Your task to perform on an android device: Play the last video I watched on Youtube Image 0: 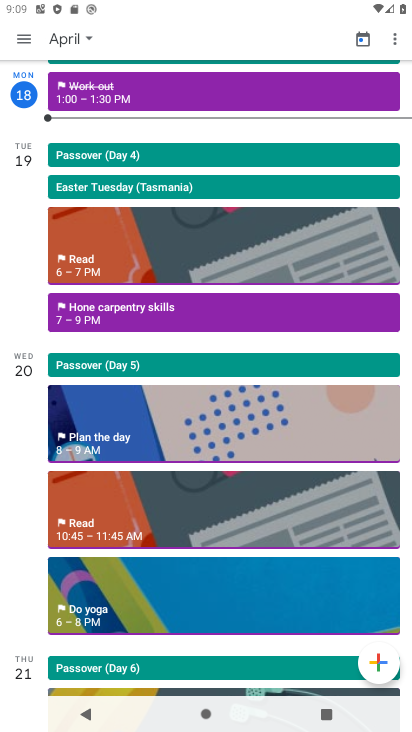
Step 0: drag from (120, 613) to (226, 291)
Your task to perform on an android device: Play the last video I watched on Youtube Image 1: 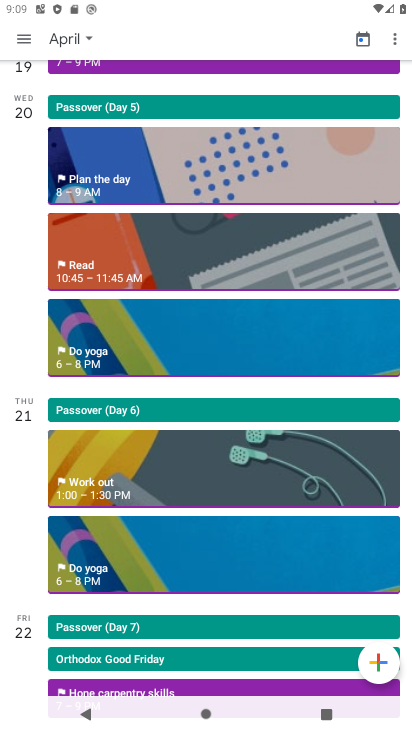
Step 1: drag from (296, 331) to (388, 722)
Your task to perform on an android device: Play the last video I watched on Youtube Image 2: 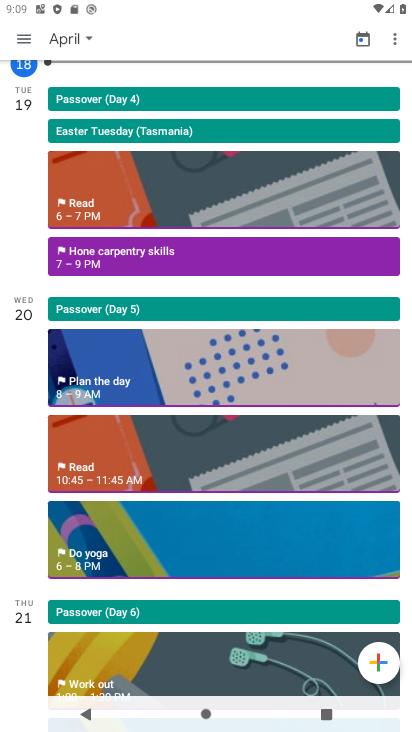
Step 2: press home button
Your task to perform on an android device: Play the last video I watched on Youtube Image 3: 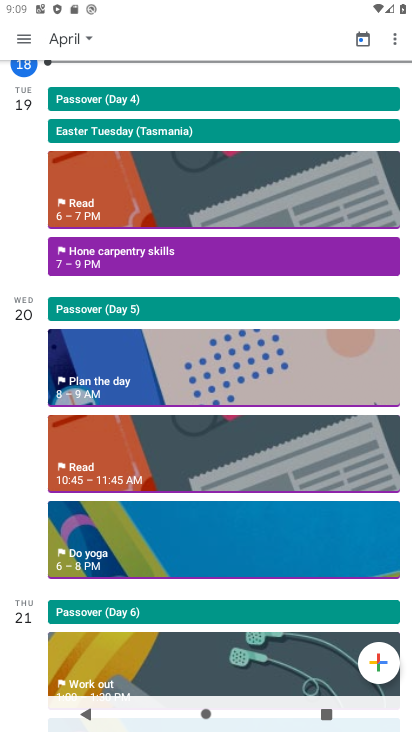
Step 3: drag from (388, 722) to (395, 417)
Your task to perform on an android device: Play the last video I watched on Youtube Image 4: 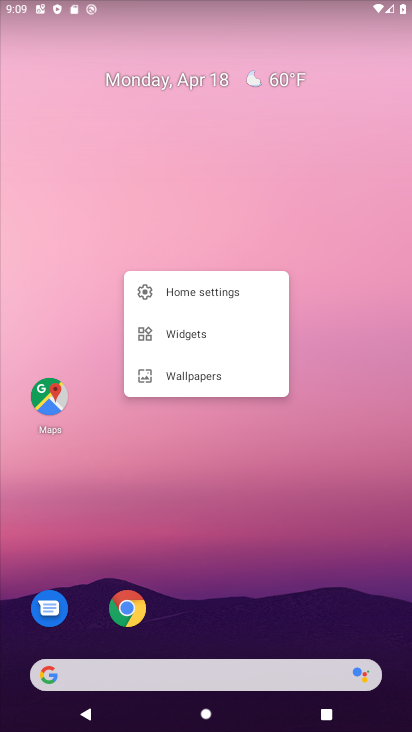
Step 4: drag from (211, 562) to (303, 109)
Your task to perform on an android device: Play the last video I watched on Youtube Image 5: 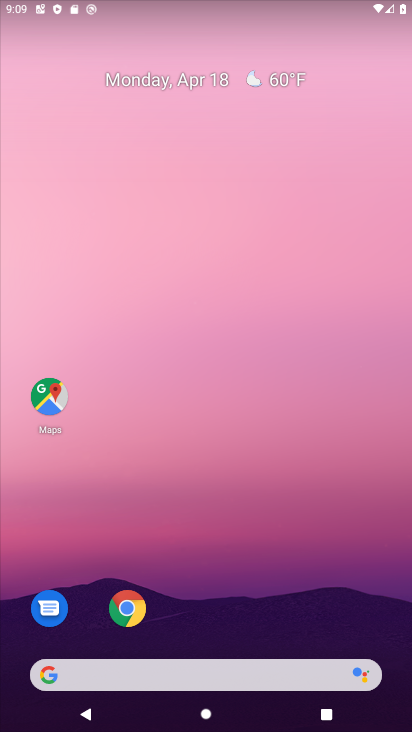
Step 5: drag from (217, 561) to (292, 105)
Your task to perform on an android device: Play the last video I watched on Youtube Image 6: 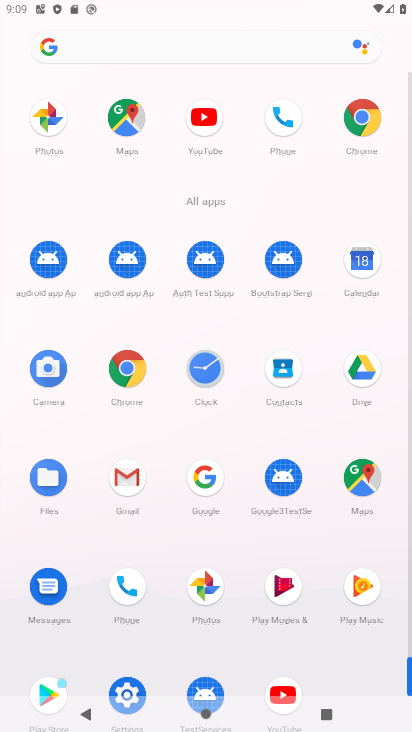
Step 6: click (208, 110)
Your task to perform on an android device: Play the last video I watched on Youtube Image 7: 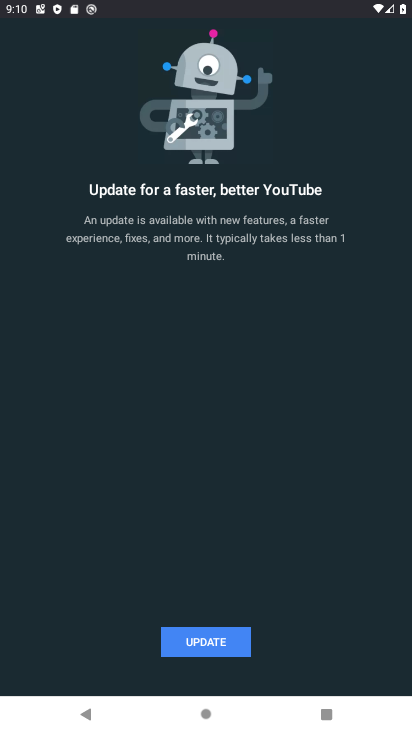
Step 7: task complete